Your task to perform on an android device: toggle pop-ups in chrome Image 0: 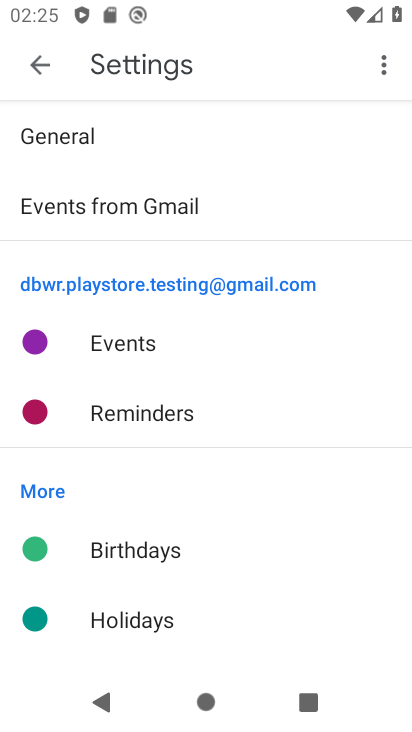
Step 0: press home button
Your task to perform on an android device: toggle pop-ups in chrome Image 1: 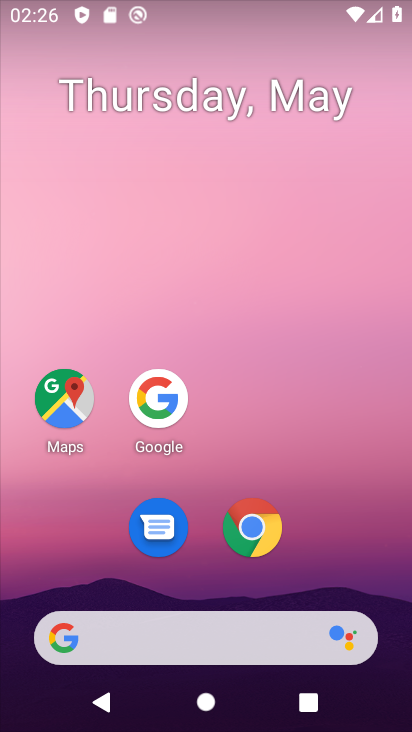
Step 1: drag from (224, 564) to (162, 177)
Your task to perform on an android device: toggle pop-ups in chrome Image 2: 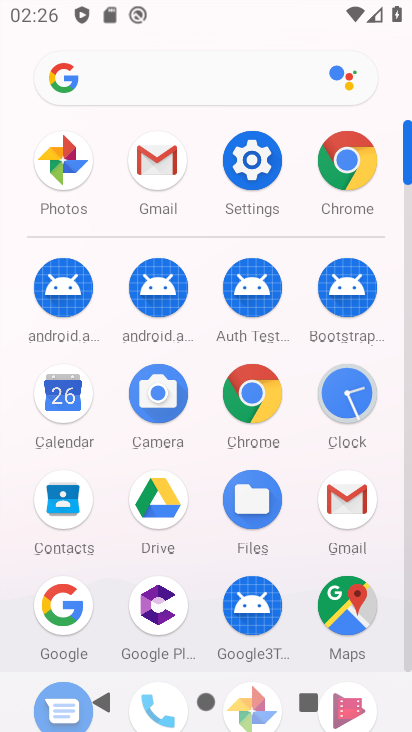
Step 2: click (243, 382)
Your task to perform on an android device: toggle pop-ups in chrome Image 3: 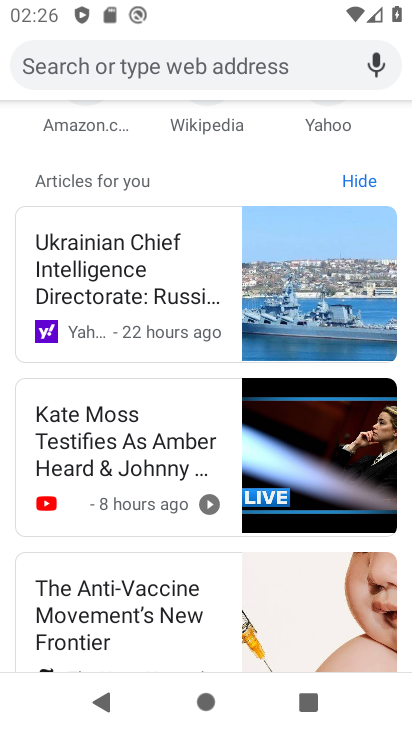
Step 3: drag from (270, 140) to (290, 707)
Your task to perform on an android device: toggle pop-ups in chrome Image 4: 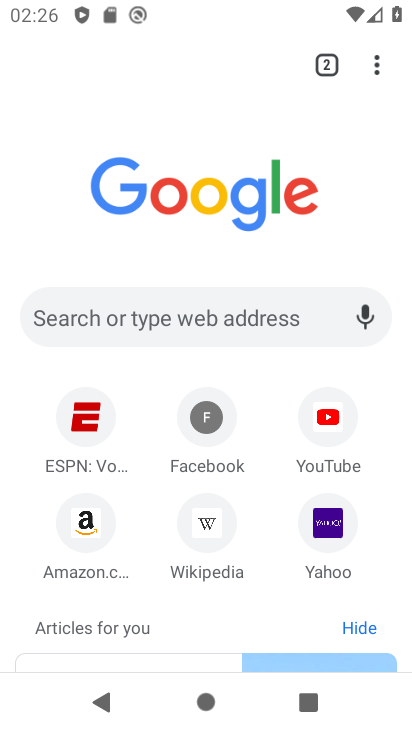
Step 4: click (382, 63)
Your task to perform on an android device: toggle pop-ups in chrome Image 5: 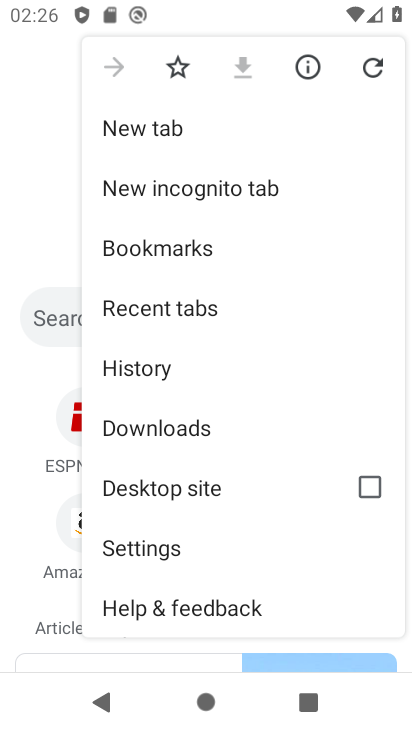
Step 5: drag from (192, 504) to (238, 171)
Your task to perform on an android device: toggle pop-ups in chrome Image 6: 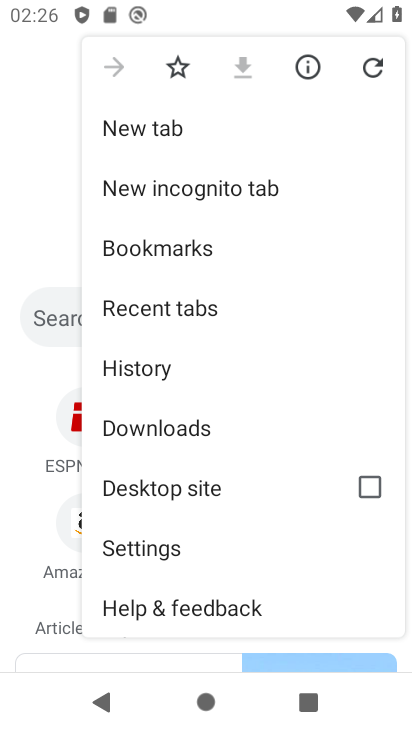
Step 6: click (168, 553)
Your task to perform on an android device: toggle pop-ups in chrome Image 7: 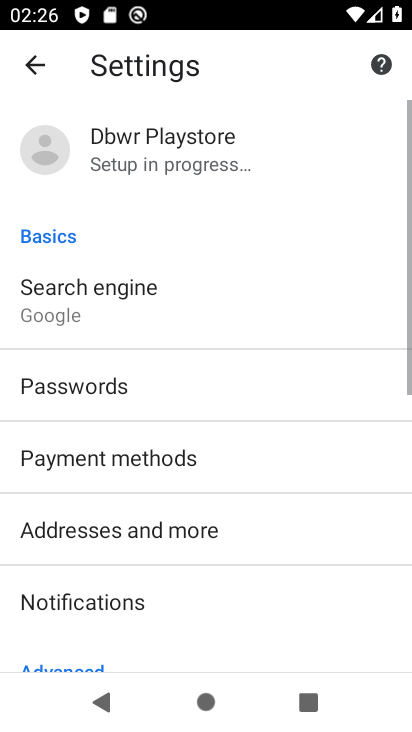
Step 7: drag from (271, 554) to (282, 102)
Your task to perform on an android device: toggle pop-ups in chrome Image 8: 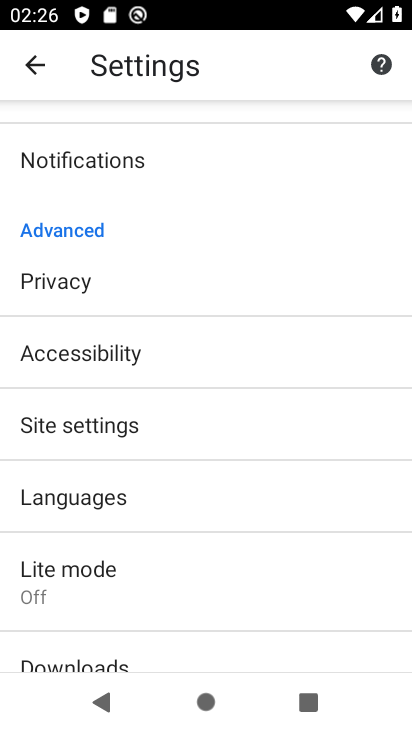
Step 8: click (172, 434)
Your task to perform on an android device: toggle pop-ups in chrome Image 9: 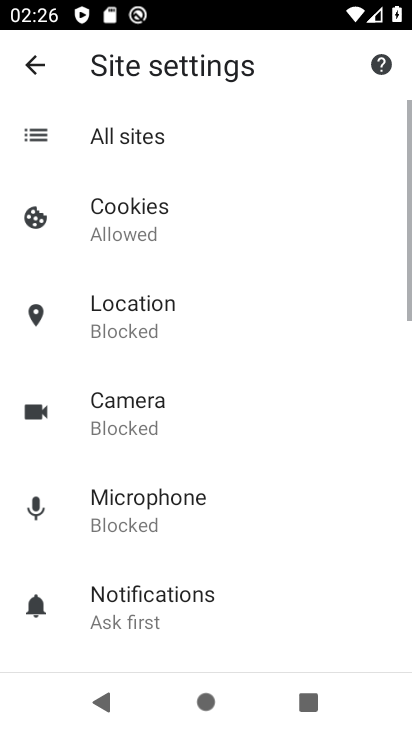
Step 9: drag from (198, 500) to (260, 115)
Your task to perform on an android device: toggle pop-ups in chrome Image 10: 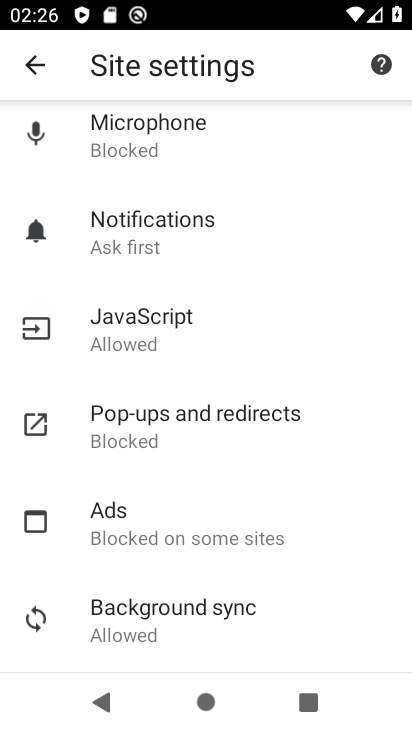
Step 10: click (172, 434)
Your task to perform on an android device: toggle pop-ups in chrome Image 11: 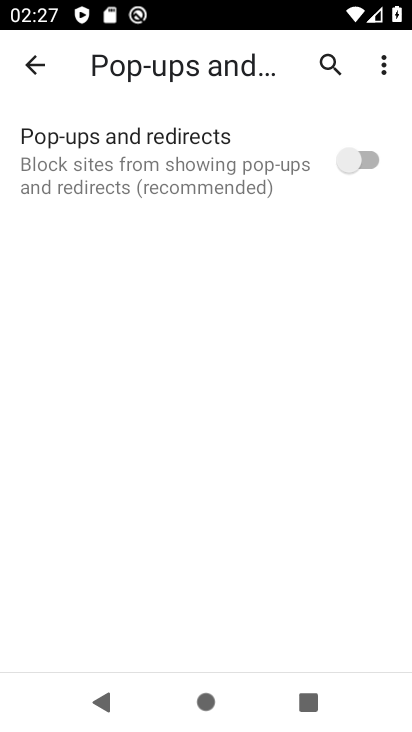
Step 11: click (339, 169)
Your task to perform on an android device: toggle pop-ups in chrome Image 12: 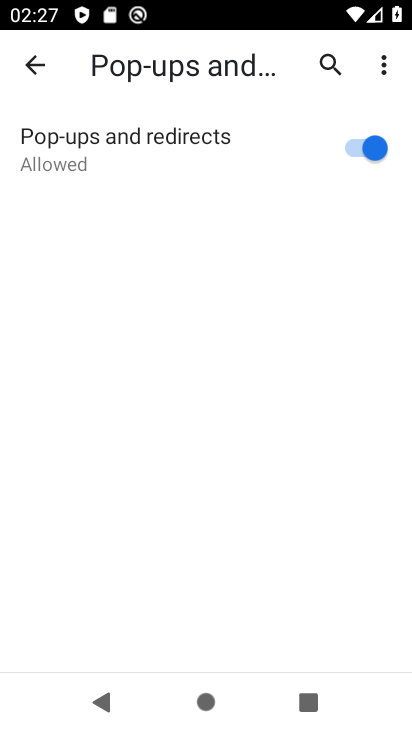
Step 12: task complete